Your task to perform on an android device: open app "LiveIn - Share Your Moment" Image 0: 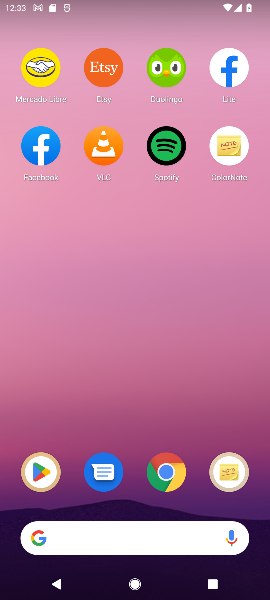
Step 0: click (50, 467)
Your task to perform on an android device: open app "LiveIn - Share Your Moment" Image 1: 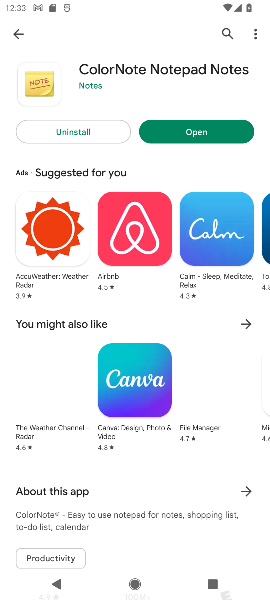
Step 1: click (218, 30)
Your task to perform on an android device: open app "LiveIn - Share Your Moment" Image 2: 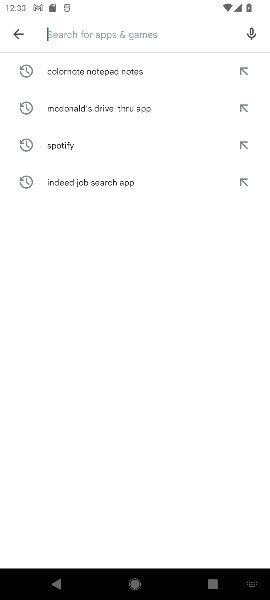
Step 2: type "liveIn - share your moment"
Your task to perform on an android device: open app "LiveIn - Share Your Moment" Image 3: 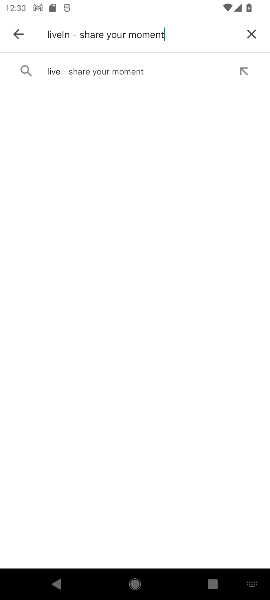
Step 3: click (151, 76)
Your task to perform on an android device: open app "LiveIn - Share Your Moment" Image 4: 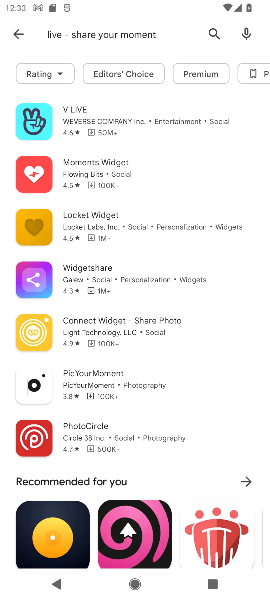
Step 4: task complete